Your task to perform on an android device: Go to Wikipedia Image 0: 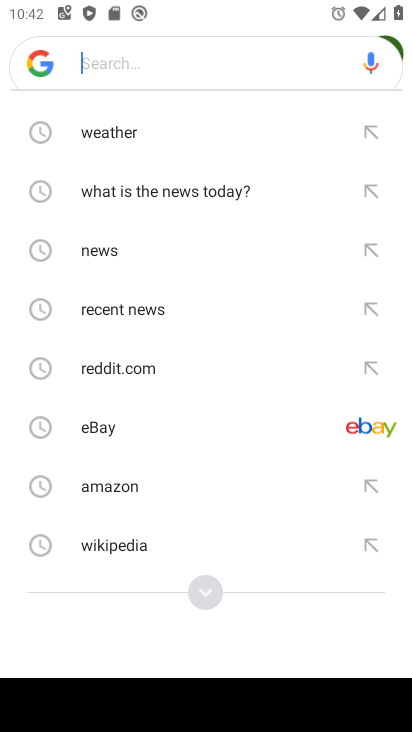
Step 0: press back button
Your task to perform on an android device: Go to Wikipedia Image 1: 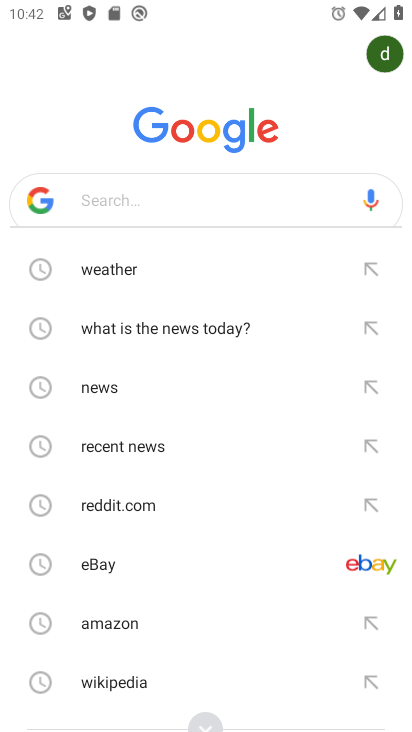
Step 1: press back button
Your task to perform on an android device: Go to Wikipedia Image 2: 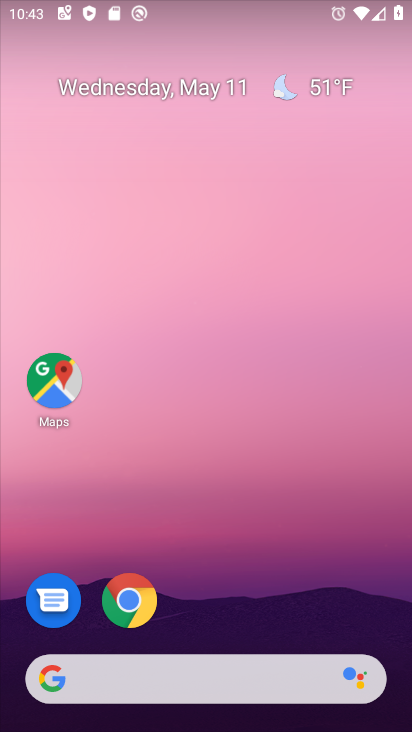
Step 2: click (150, 587)
Your task to perform on an android device: Go to Wikipedia Image 3: 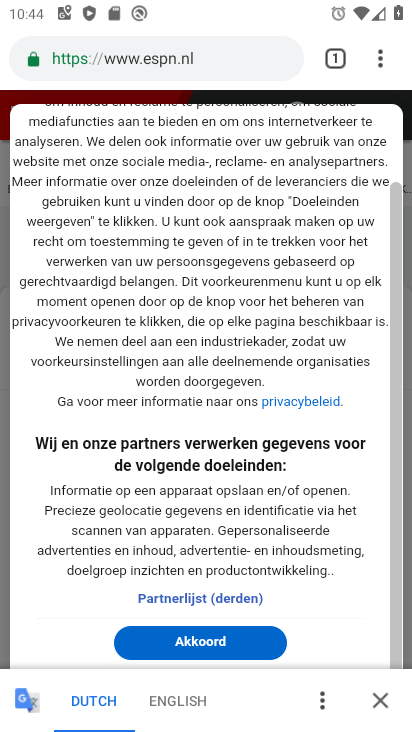
Step 3: task complete